Your task to perform on an android device: change the upload size in google photos Image 0: 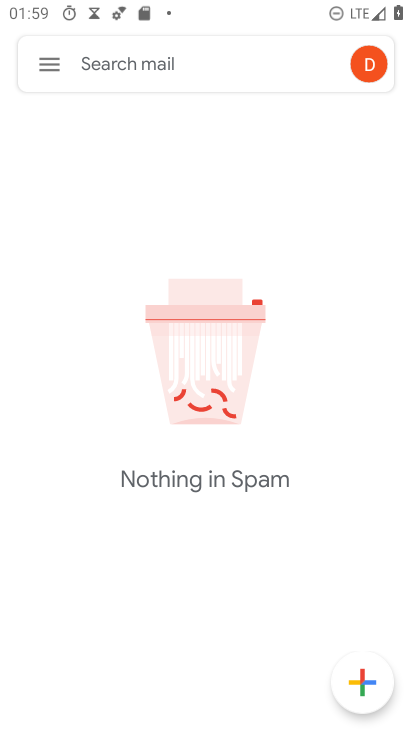
Step 0: press home button
Your task to perform on an android device: change the upload size in google photos Image 1: 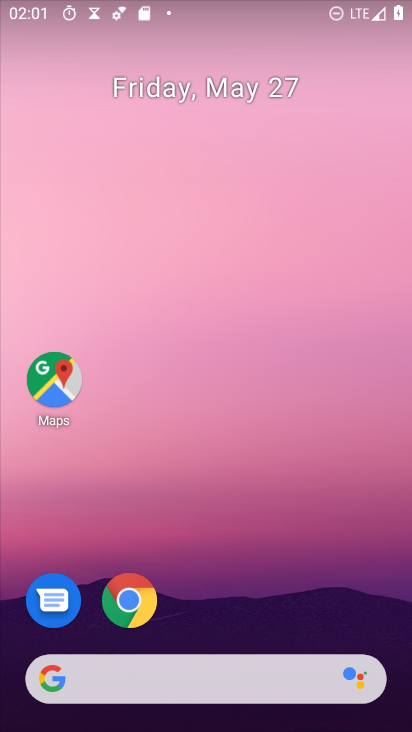
Step 1: drag from (264, 575) to (257, 112)
Your task to perform on an android device: change the upload size in google photos Image 2: 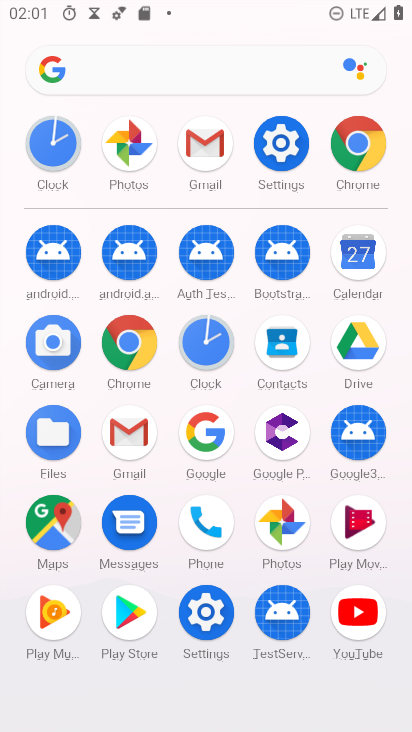
Step 2: click (139, 148)
Your task to perform on an android device: change the upload size in google photos Image 3: 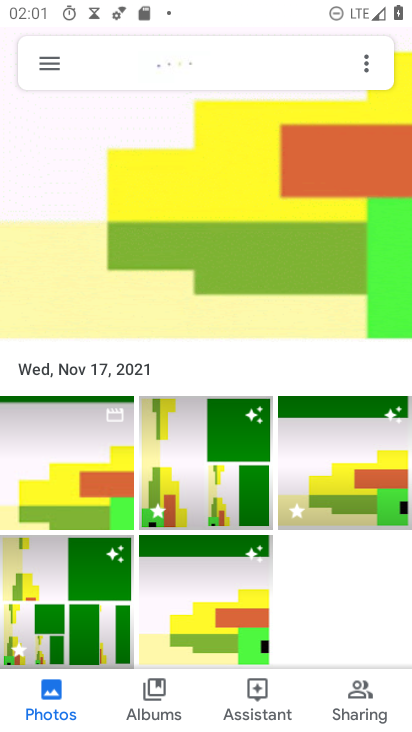
Step 3: click (45, 54)
Your task to perform on an android device: change the upload size in google photos Image 4: 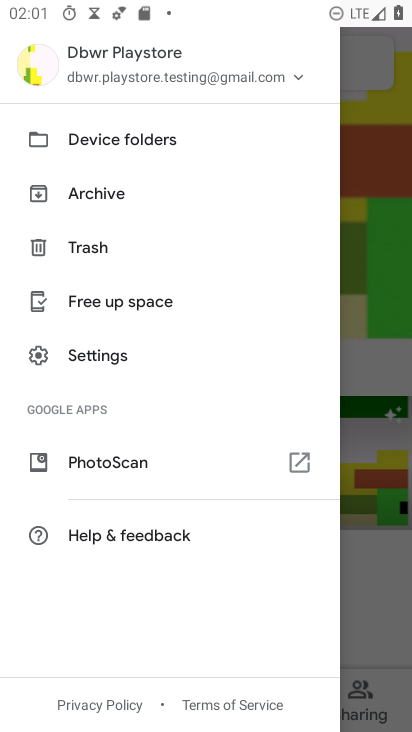
Step 4: click (126, 344)
Your task to perform on an android device: change the upload size in google photos Image 5: 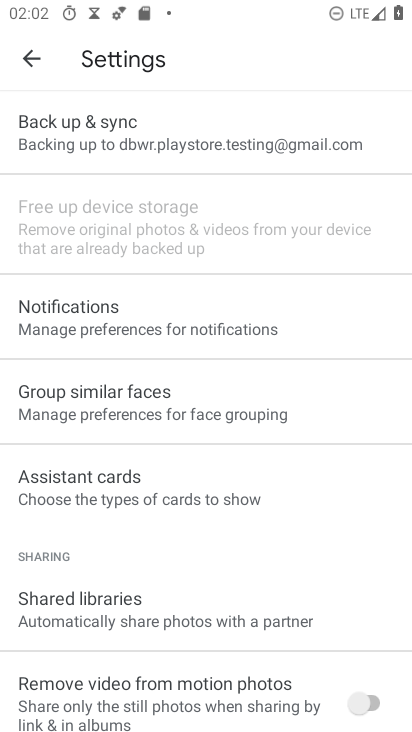
Step 5: drag from (206, 505) to (204, 249)
Your task to perform on an android device: change the upload size in google photos Image 6: 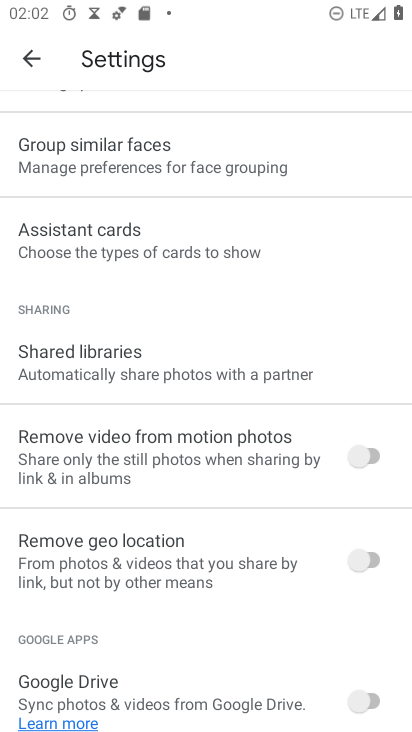
Step 6: drag from (194, 570) to (194, 243)
Your task to perform on an android device: change the upload size in google photos Image 7: 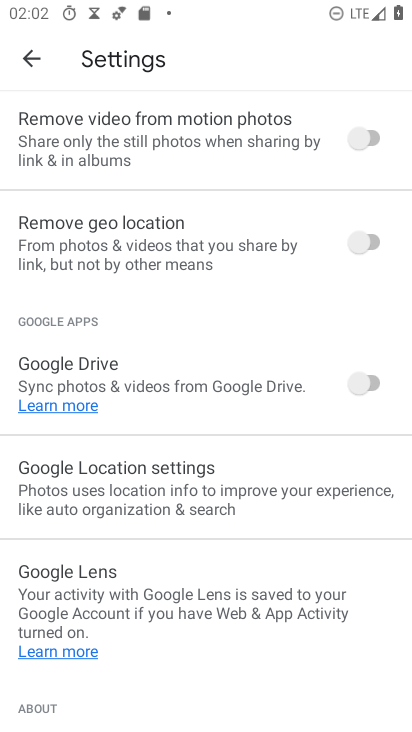
Step 7: drag from (135, 544) to (131, 146)
Your task to perform on an android device: change the upload size in google photos Image 8: 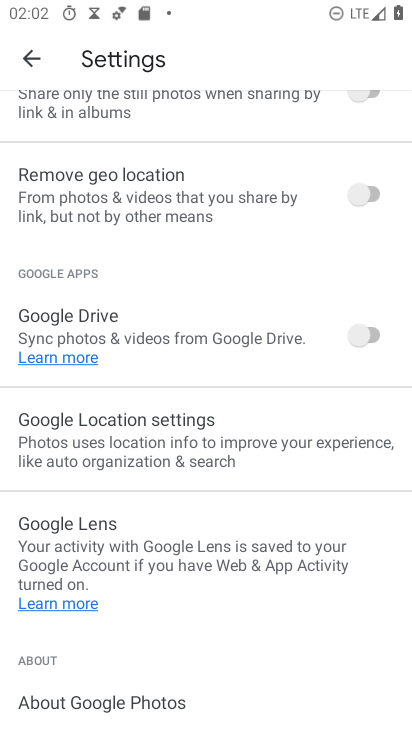
Step 8: click (132, 693)
Your task to perform on an android device: change the upload size in google photos Image 9: 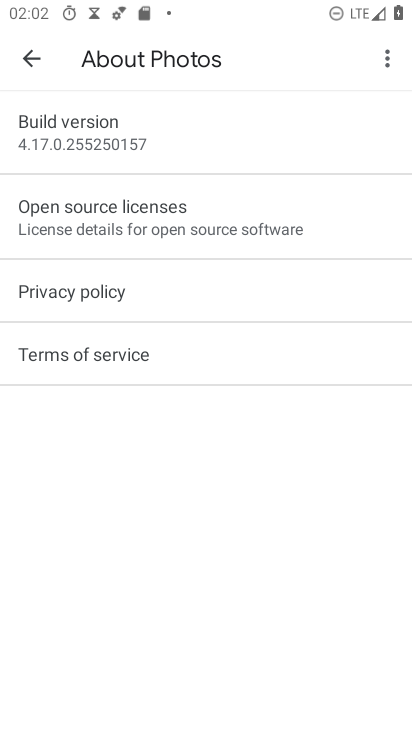
Step 9: task complete